Your task to perform on an android device: empty trash in the gmail app Image 0: 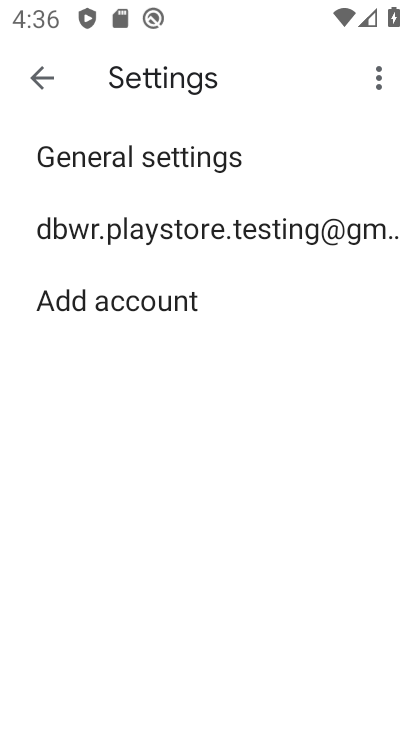
Step 0: click (42, 77)
Your task to perform on an android device: empty trash in the gmail app Image 1: 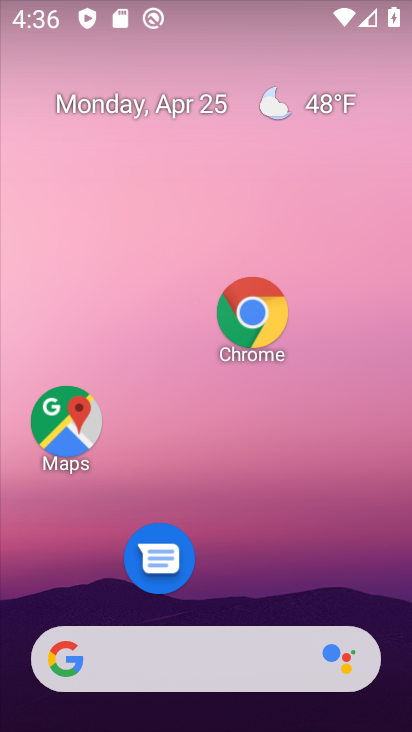
Step 1: drag from (301, 456) to (332, 83)
Your task to perform on an android device: empty trash in the gmail app Image 2: 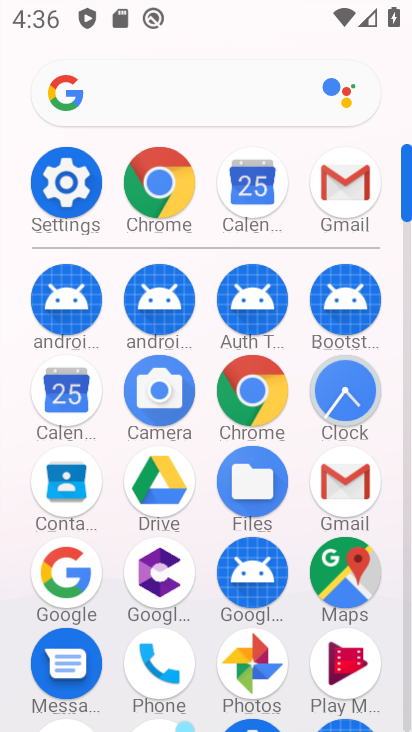
Step 2: click (363, 203)
Your task to perform on an android device: empty trash in the gmail app Image 3: 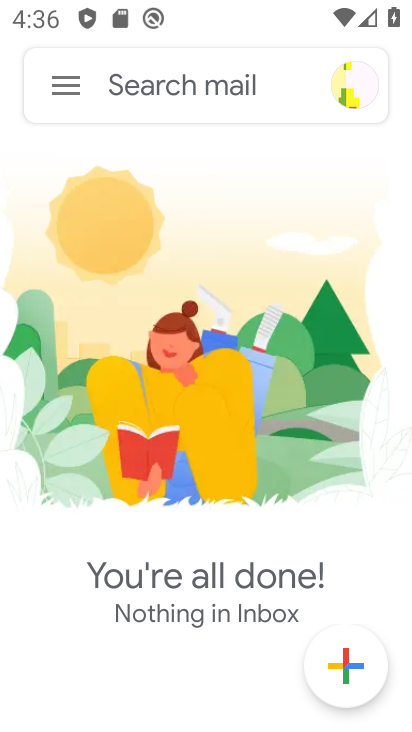
Step 3: click (63, 99)
Your task to perform on an android device: empty trash in the gmail app Image 4: 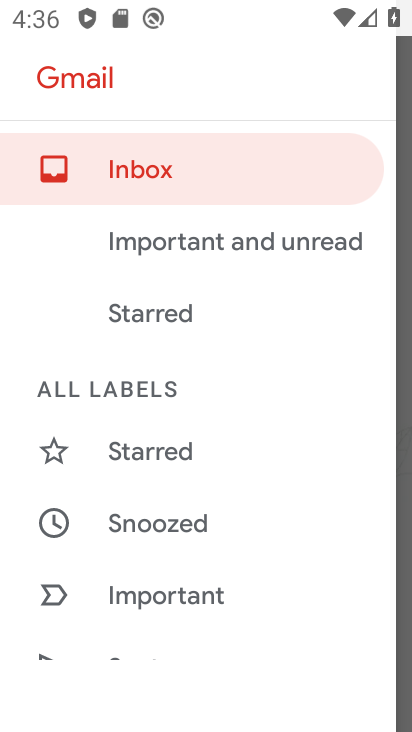
Step 4: drag from (236, 570) to (298, 166)
Your task to perform on an android device: empty trash in the gmail app Image 5: 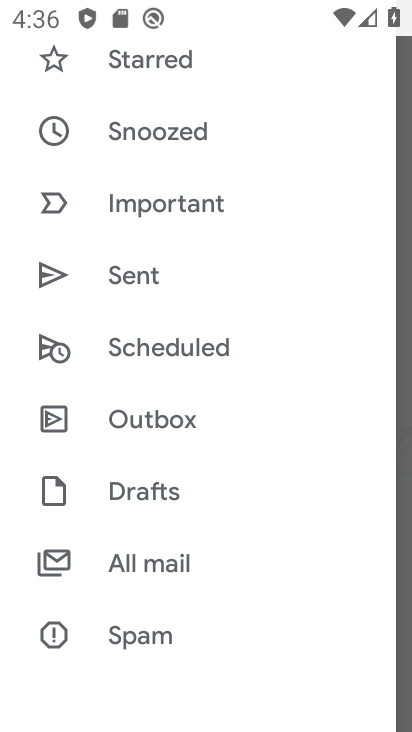
Step 5: drag from (201, 585) to (164, 193)
Your task to perform on an android device: empty trash in the gmail app Image 6: 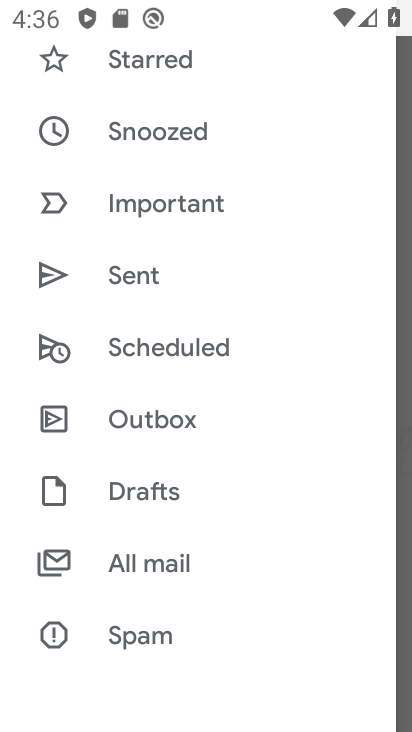
Step 6: drag from (262, 571) to (344, 265)
Your task to perform on an android device: empty trash in the gmail app Image 7: 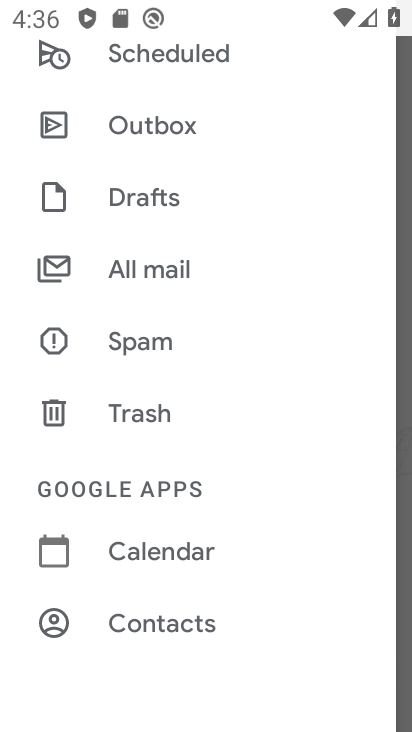
Step 7: click (130, 418)
Your task to perform on an android device: empty trash in the gmail app Image 8: 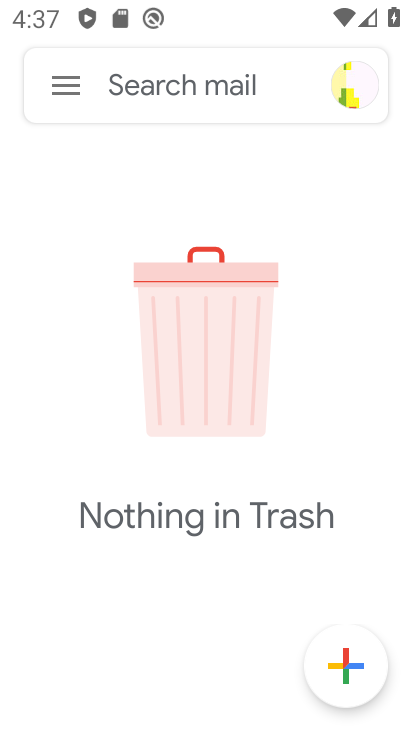
Step 8: task complete